Your task to perform on an android device: uninstall "Google Chrome" Image 0: 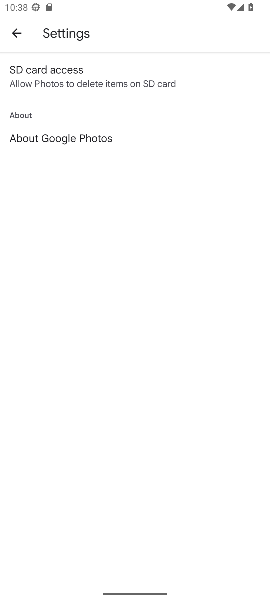
Step 0: press home button
Your task to perform on an android device: uninstall "Google Chrome" Image 1: 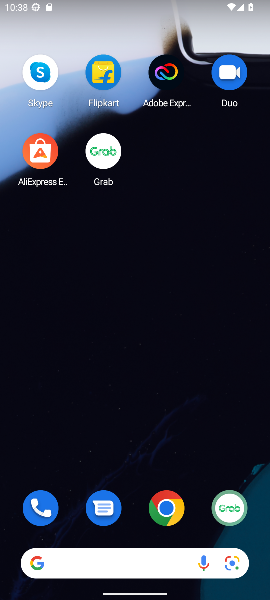
Step 1: click (165, 512)
Your task to perform on an android device: uninstall "Google Chrome" Image 2: 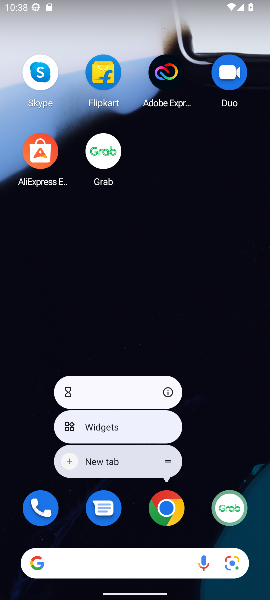
Step 2: task complete